Your task to perform on an android device: find snoozed emails in the gmail app Image 0: 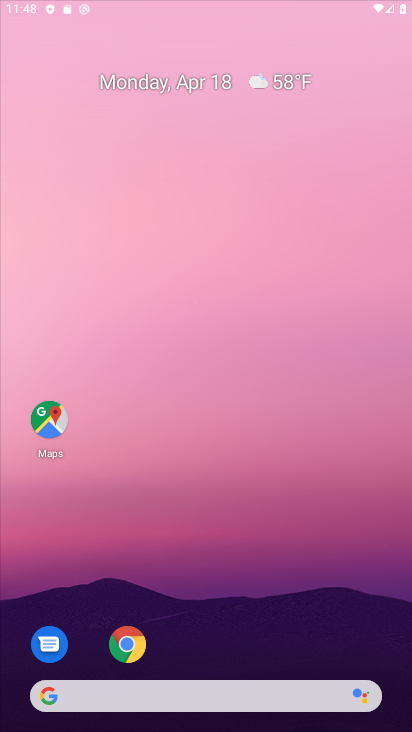
Step 0: press home button
Your task to perform on an android device: find snoozed emails in the gmail app Image 1: 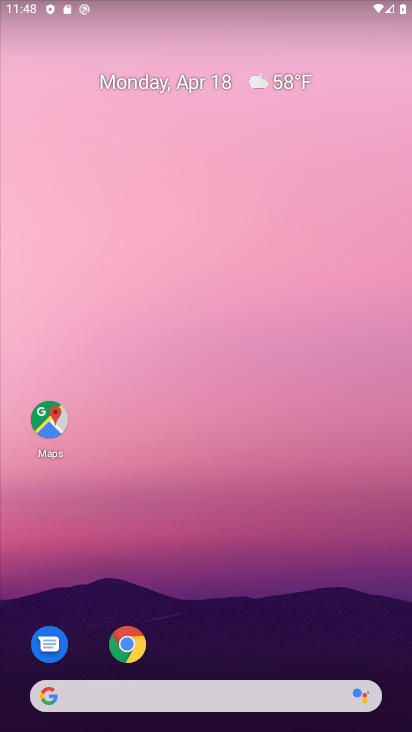
Step 1: drag from (239, 651) to (297, 150)
Your task to perform on an android device: find snoozed emails in the gmail app Image 2: 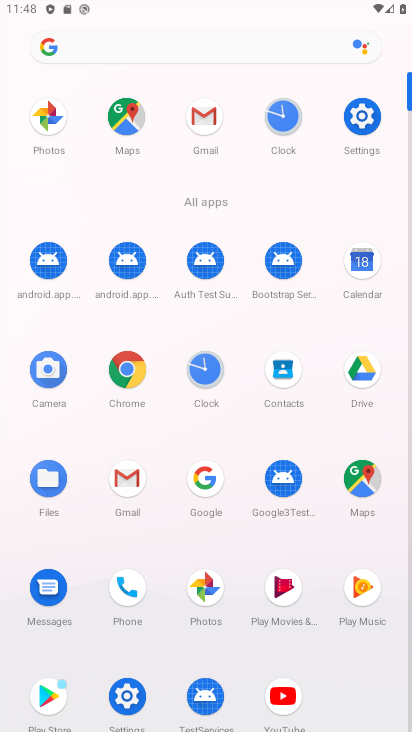
Step 2: drag from (126, 481) to (72, 183)
Your task to perform on an android device: find snoozed emails in the gmail app Image 3: 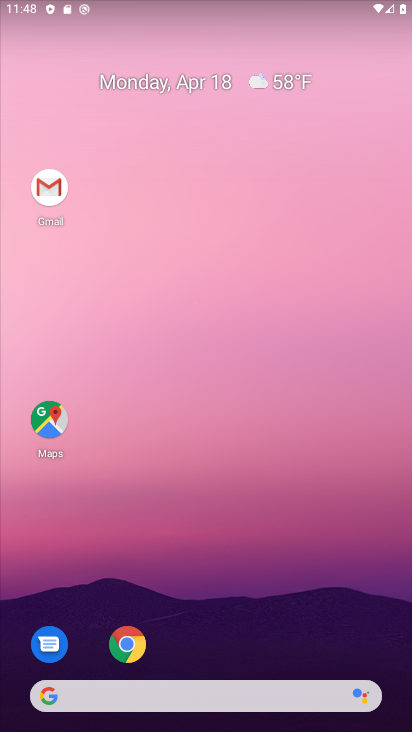
Step 3: click (51, 181)
Your task to perform on an android device: find snoozed emails in the gmail app Image 4: 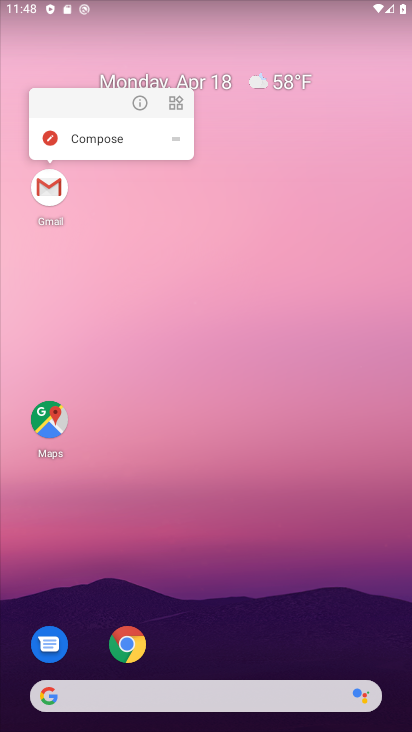
Step 4: click (51, 193)
Your task to perform on an android device: find snoozed emails in the gmail app Image 5: 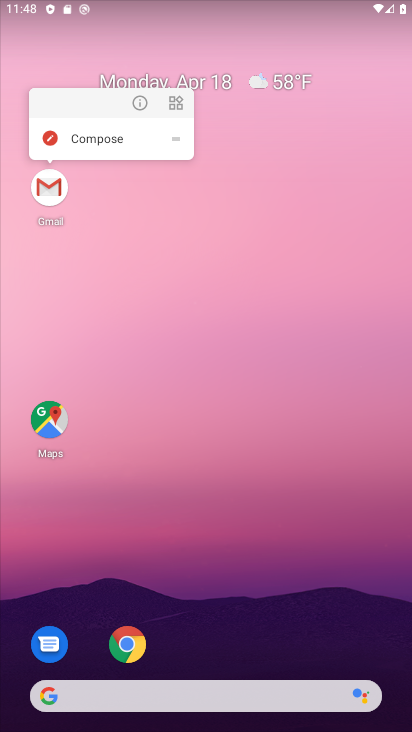
Step 5: click (51, 193)
Your task to perform on an android device: find snoozed emails in the gmail app Image 6: 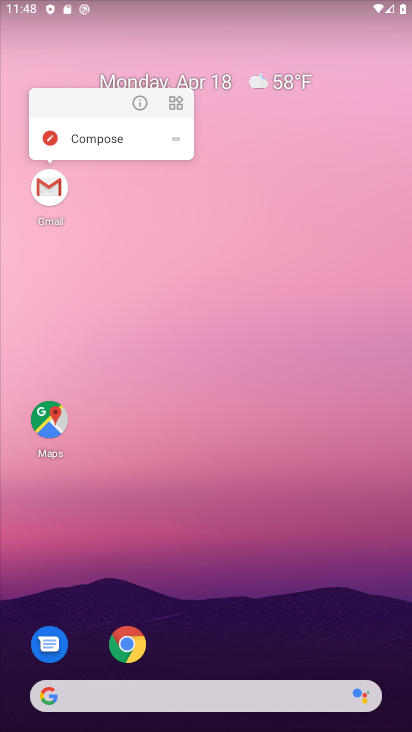
Step 6: click (102, 262)
Your task to perform on an android device: find snoozed emails in the gmail app Image 7: 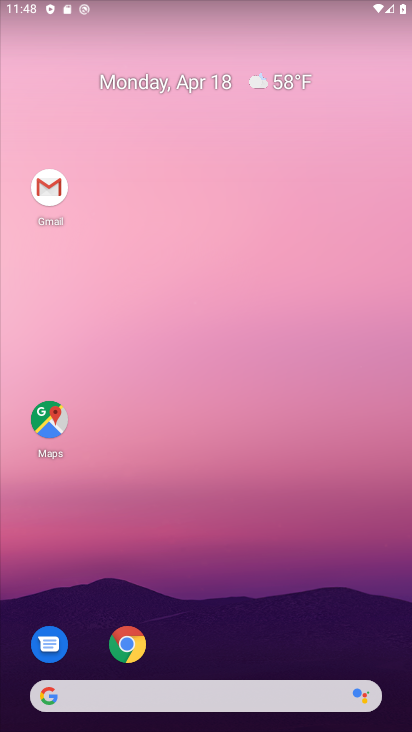
Step 7: click (53, 183)
Your task to perform on an android device: find snoozed emails in the gmail app Image 8: 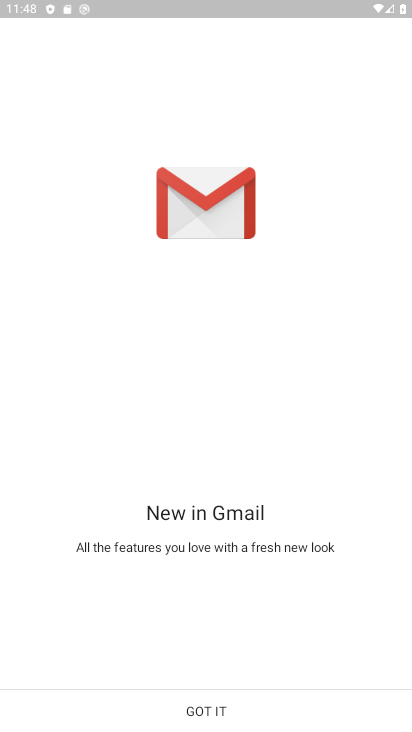
Step 8: click (189, 717)
Your task to perform on an android device: find snoozed emails in the gmail app Image 9: 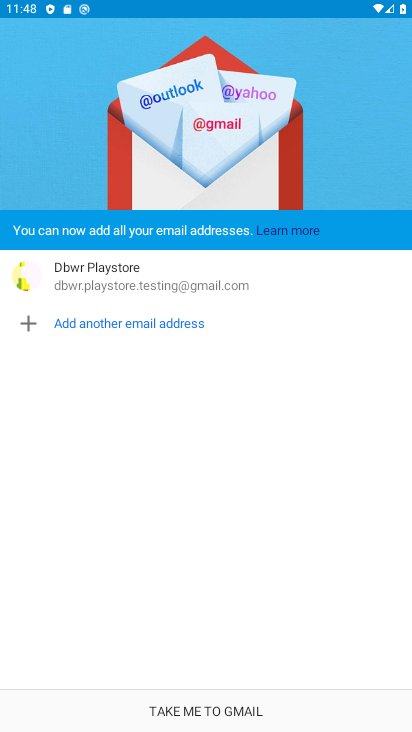
Step 9: click (189, 717)
Your task to perform on an android device: find snoozed emails in the gmail app Image 10: 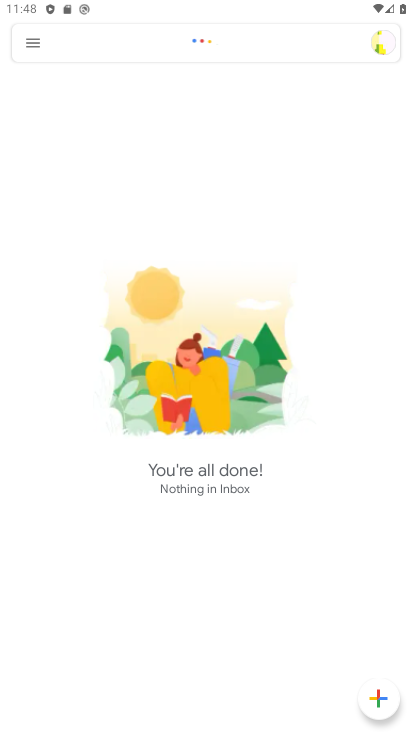
Step 10: click (37, 48)
Your task to perform on an android device: find snoozed emails in the gmail app Image 11: 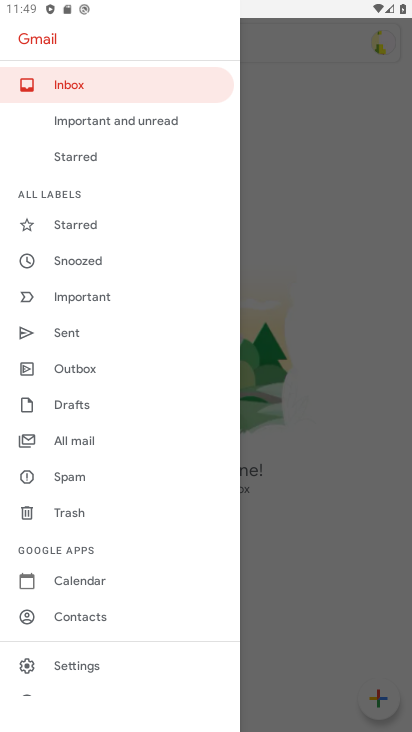
Step 11: click (93, 267)
Your task to perform on an android device: find snoozed emails in the gmail app Image 12: 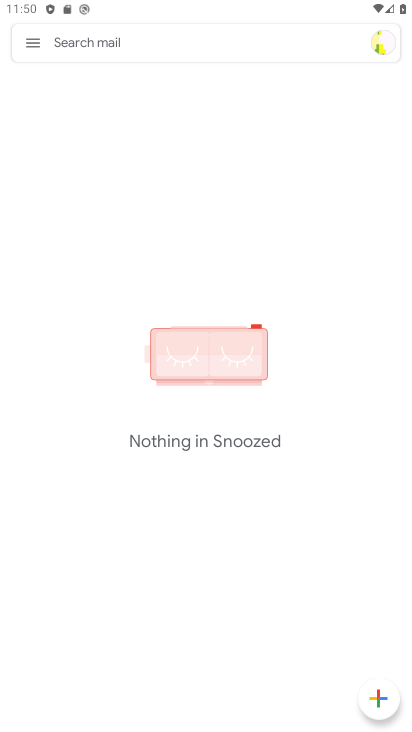
Step 12: task complete